Your task to perform on an android device: turn off location Image 0: 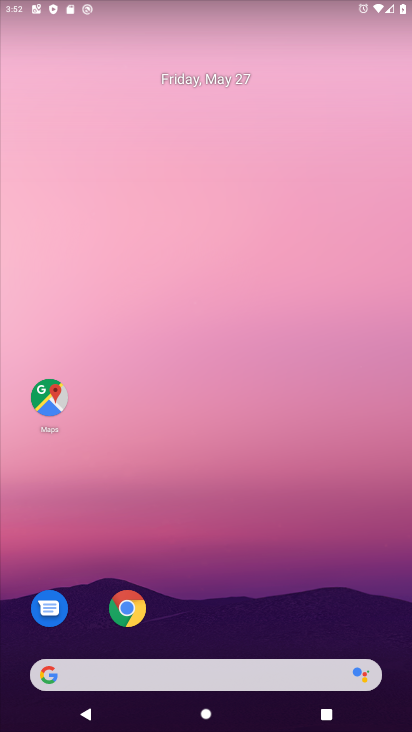
Step 0: drag from (168, 664) to (199, 329)
Your task to perform on an android device: turn off location Image 1: 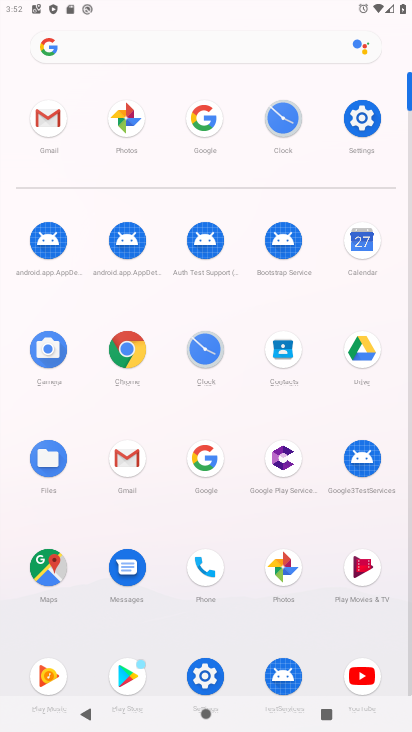
Step 1: click (371, 119)
Your task to perform on an android device: turn off location Image 2: 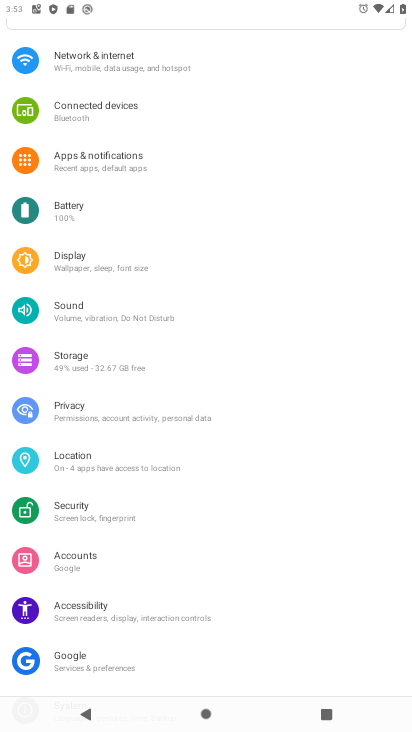
Step 2: click (64, 452)
Your task to perform on an android device: turn off location Image 3: 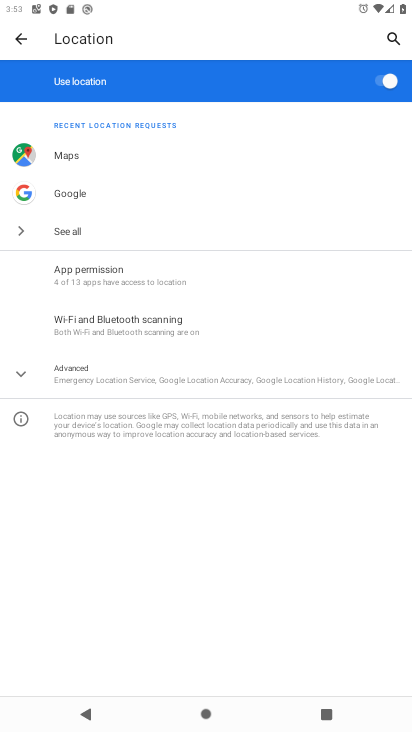
Step 3: click (376, 76)
Your task to perform on an android device: turn off location Image 4: 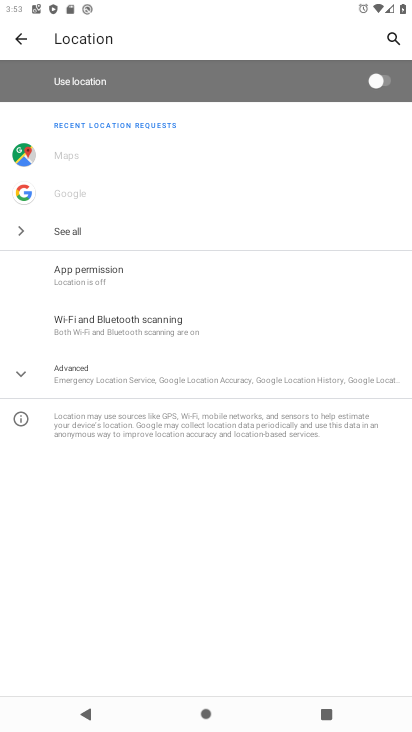
Step 4: task complete